Your task to perform on an android device: open app "Microsoft Outlook" Image 0: 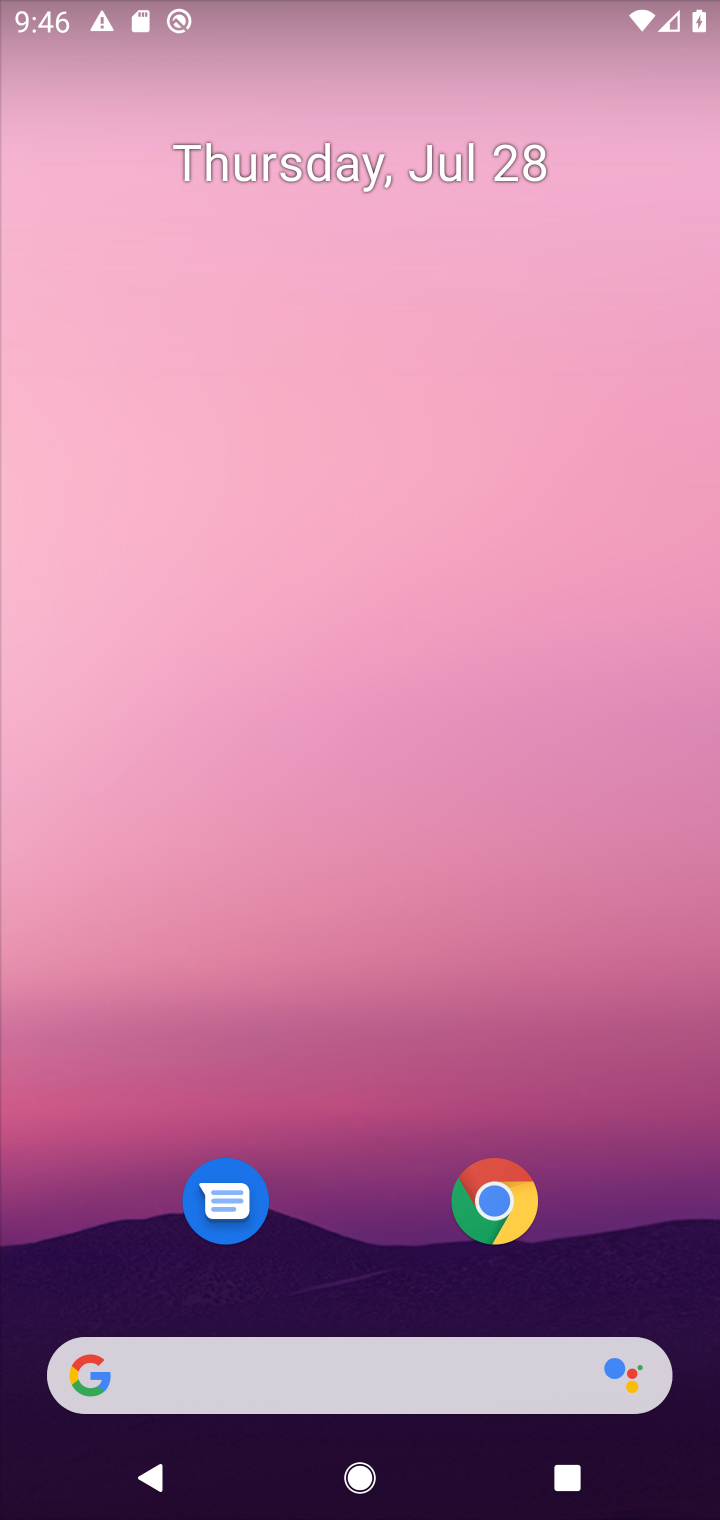
Step 0: click (274, 83)
Your task to perform on an android device: open app "Microsoft Outlook" Image 1: 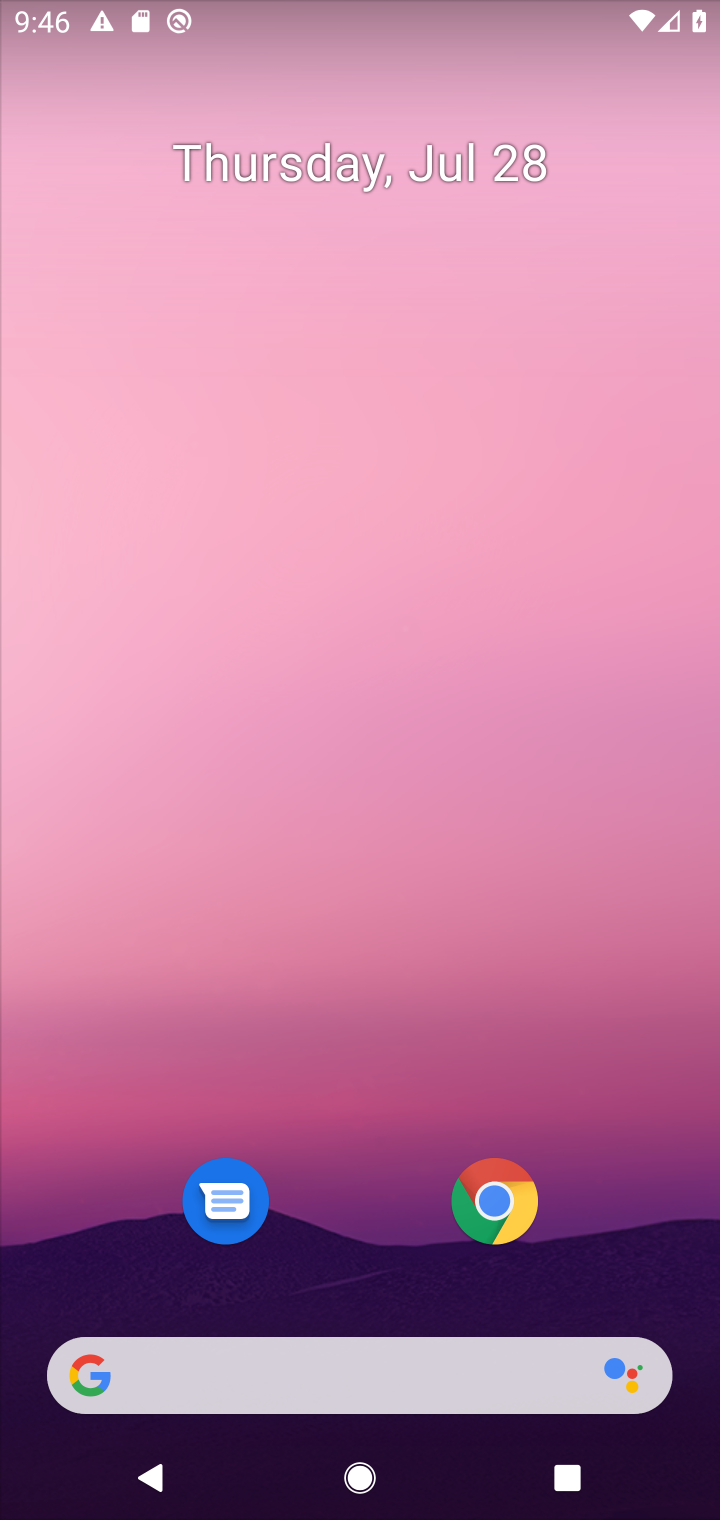
Step 1: drag from (543, 972) to (0, 917)
Your task to perform on an android device: open app "Microsoft Outlook" Image 2: 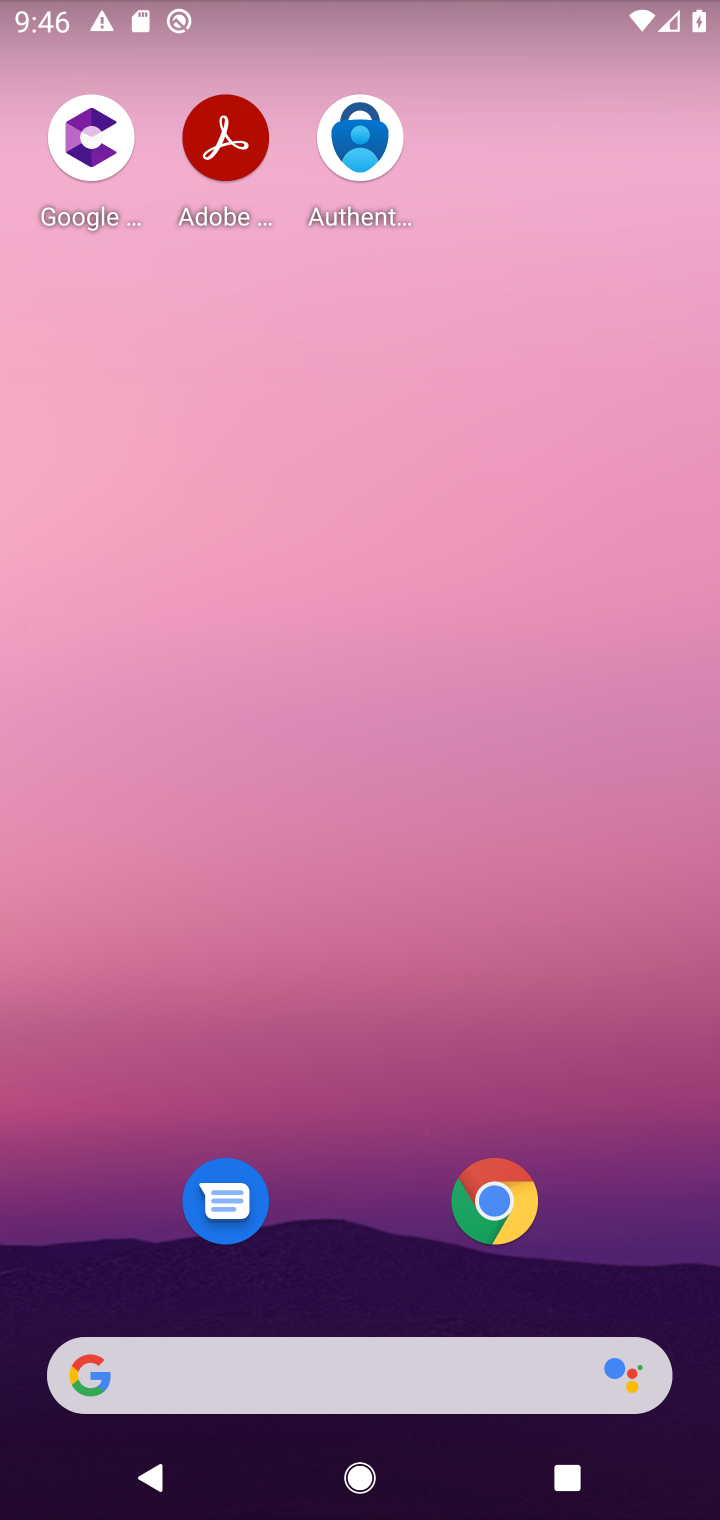
Step 2: drag from (287, 1200) to (195, 17)
Your task to perform on an android device: open app "Microsoft Outlook" Image 3: 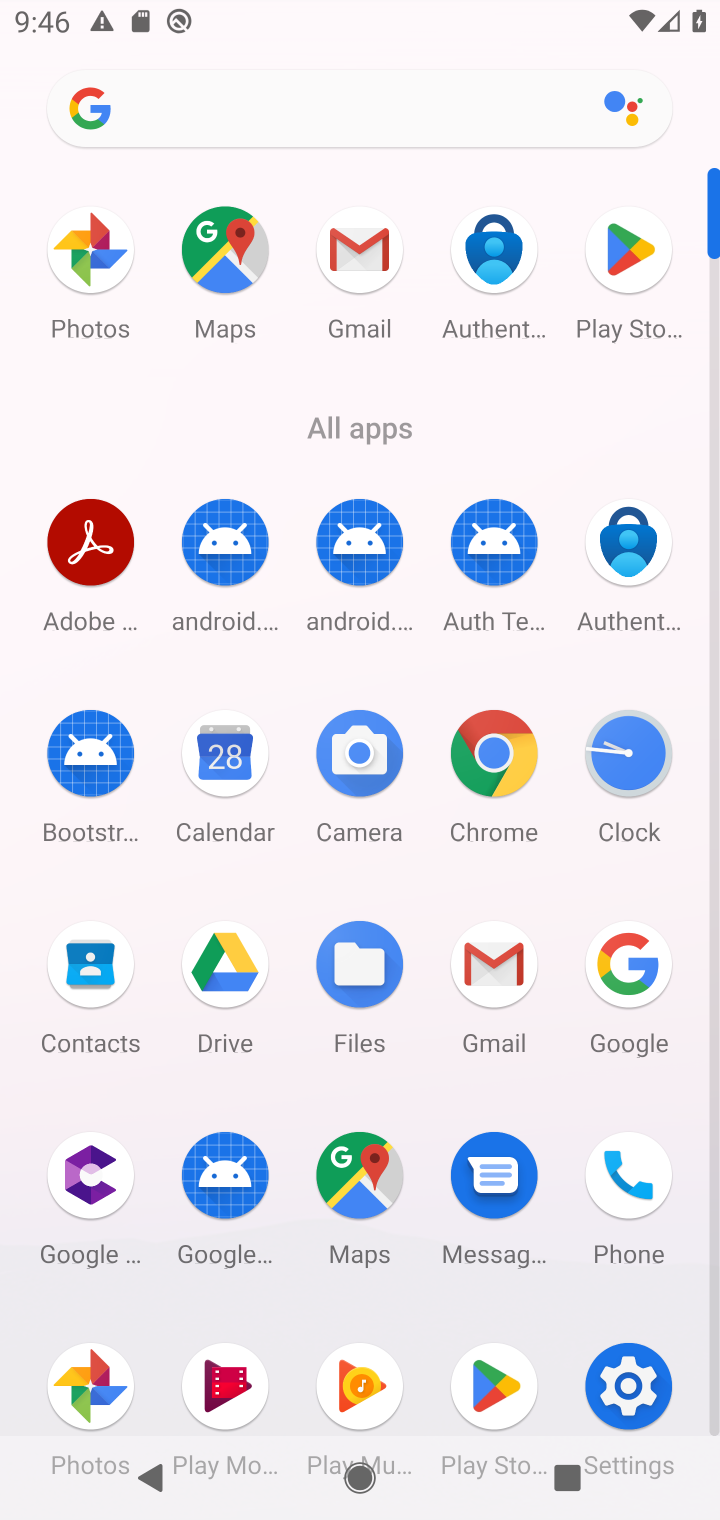
Step 3: click (631, 414)
Your task to perform on an android device: open app "Microsoft Outlook" Image 4: 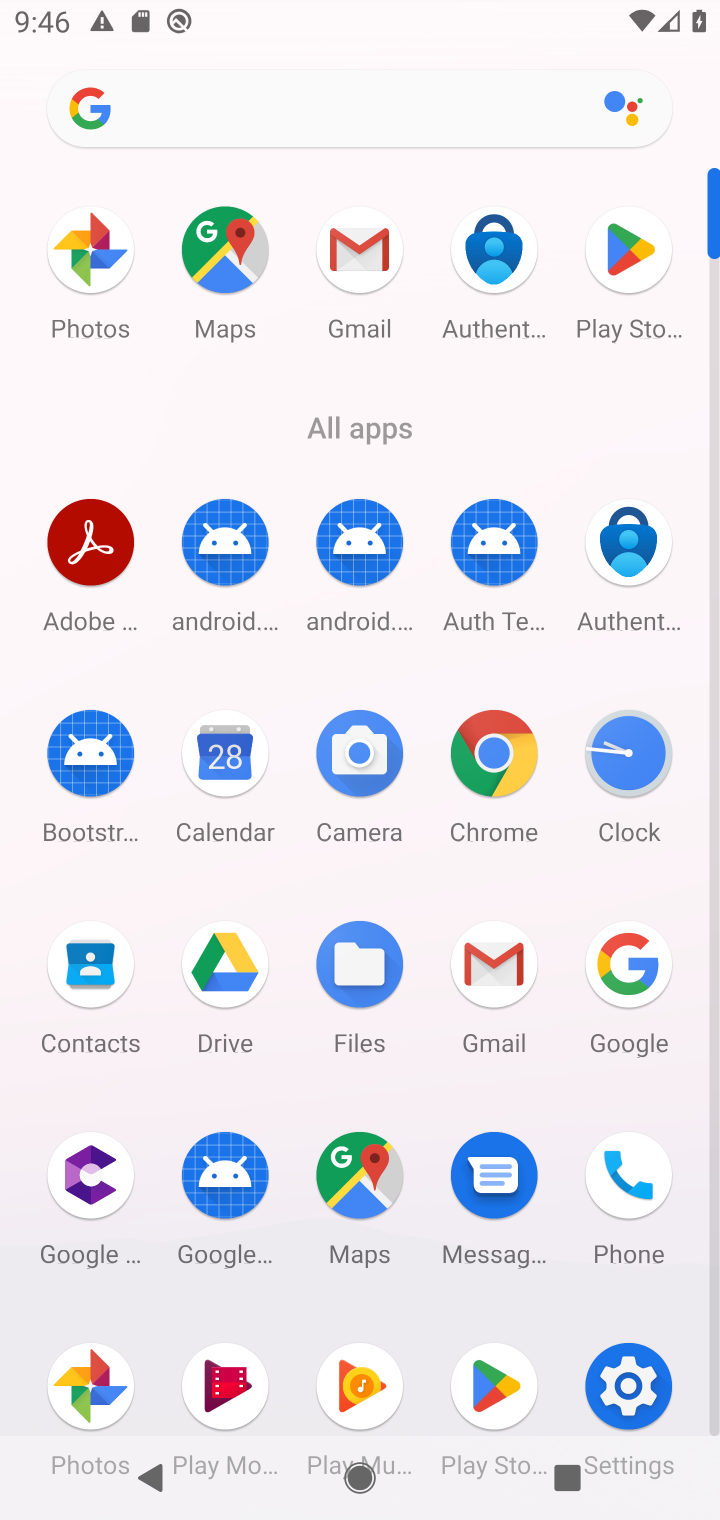
Step 4: click (635, 295)
Your task to perform on an android device: open app "Microsoft Outlook" Image 5: 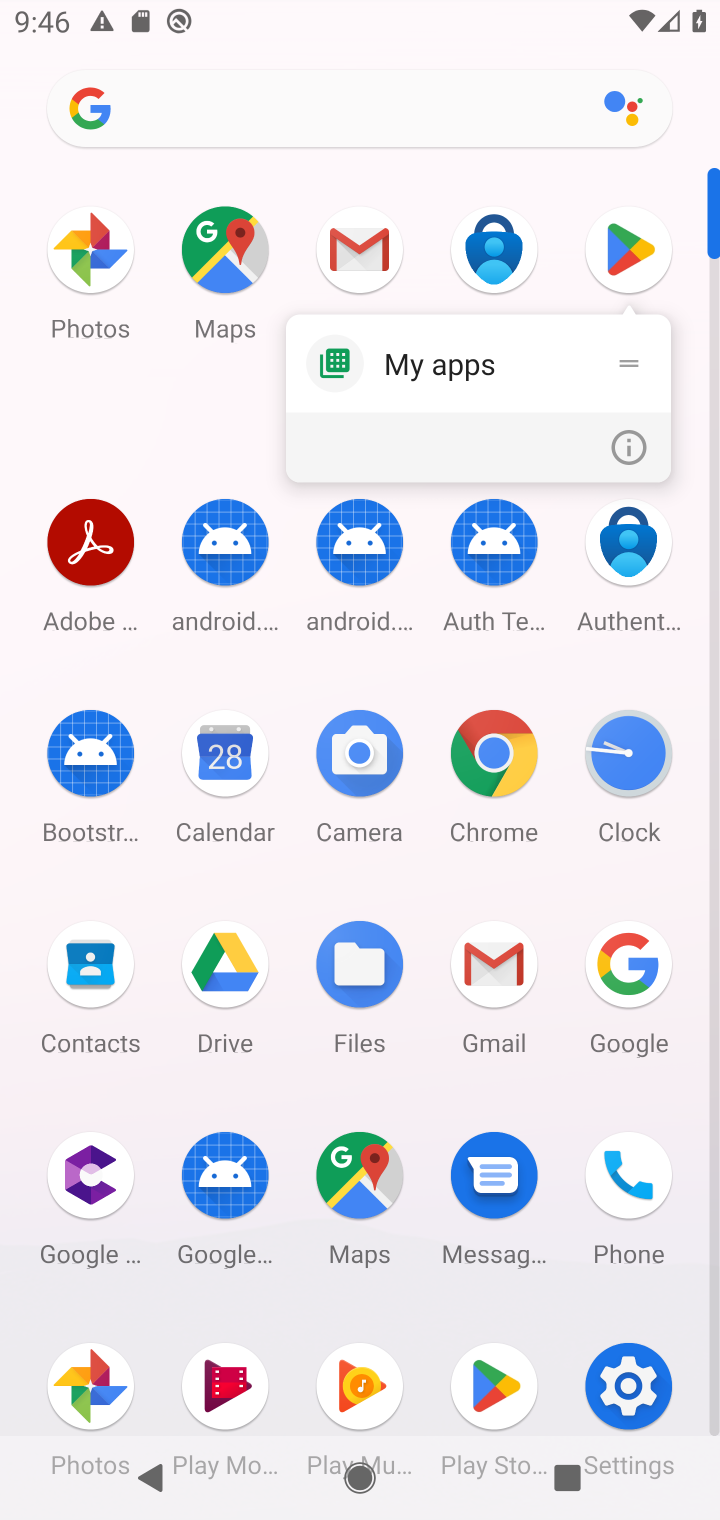
Step 5: click (649, 274)
Your task to perform on an android device: open app "Microsoft Outlook" Image 6: 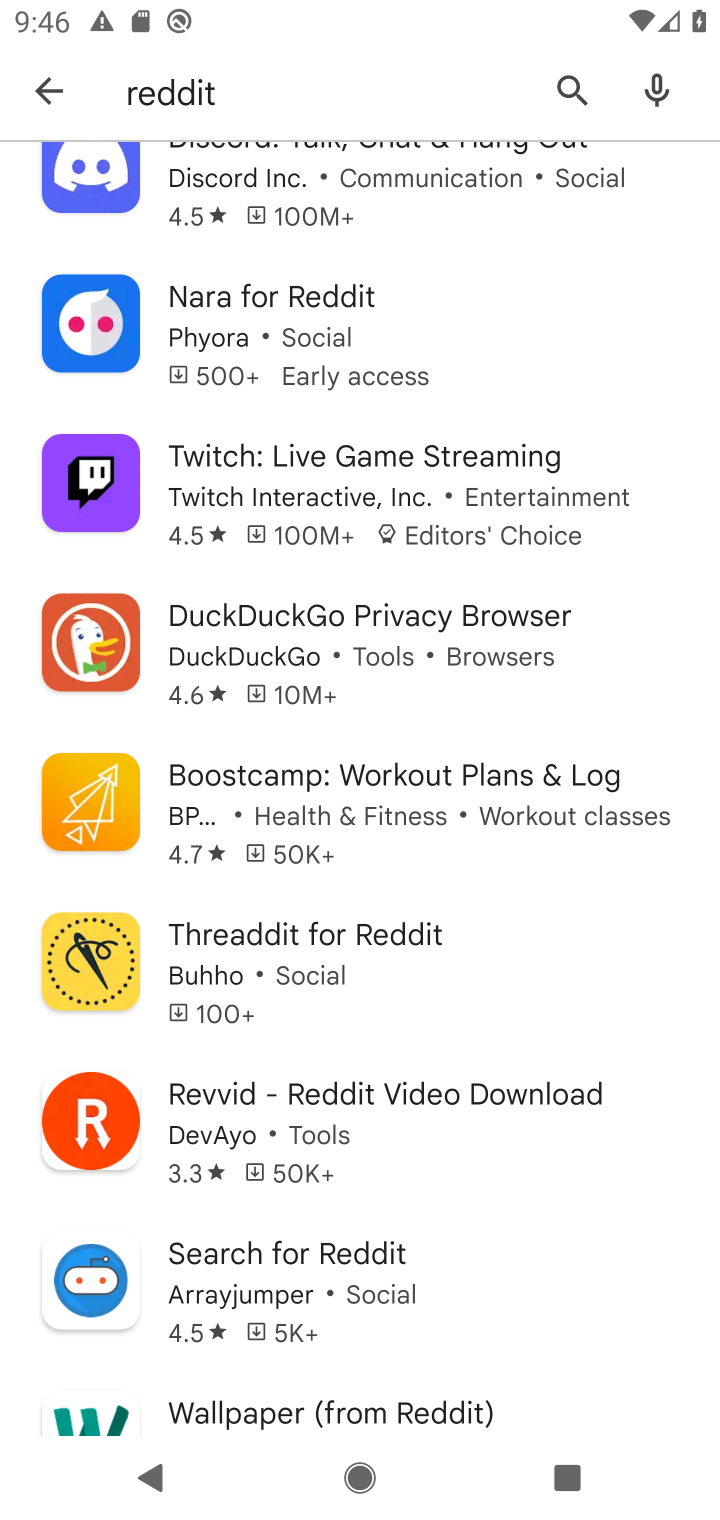
Step 6: click (194, 78)
Your task to perform on an android device: open app "Microsoft Outlook" Image 7: 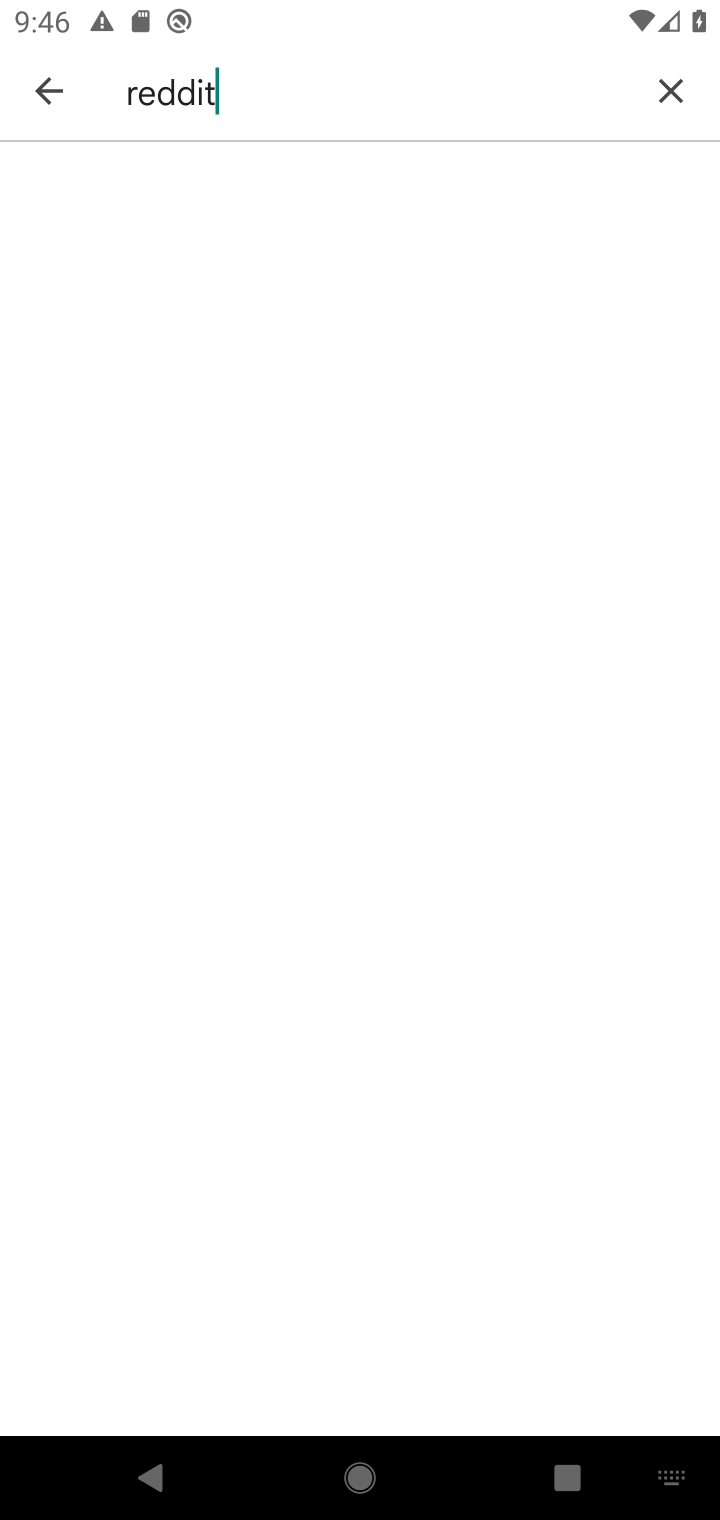
Step 7: click (645, 85)
Your task to perform on an android device: open app "Microsoft Outlook" Image 8: 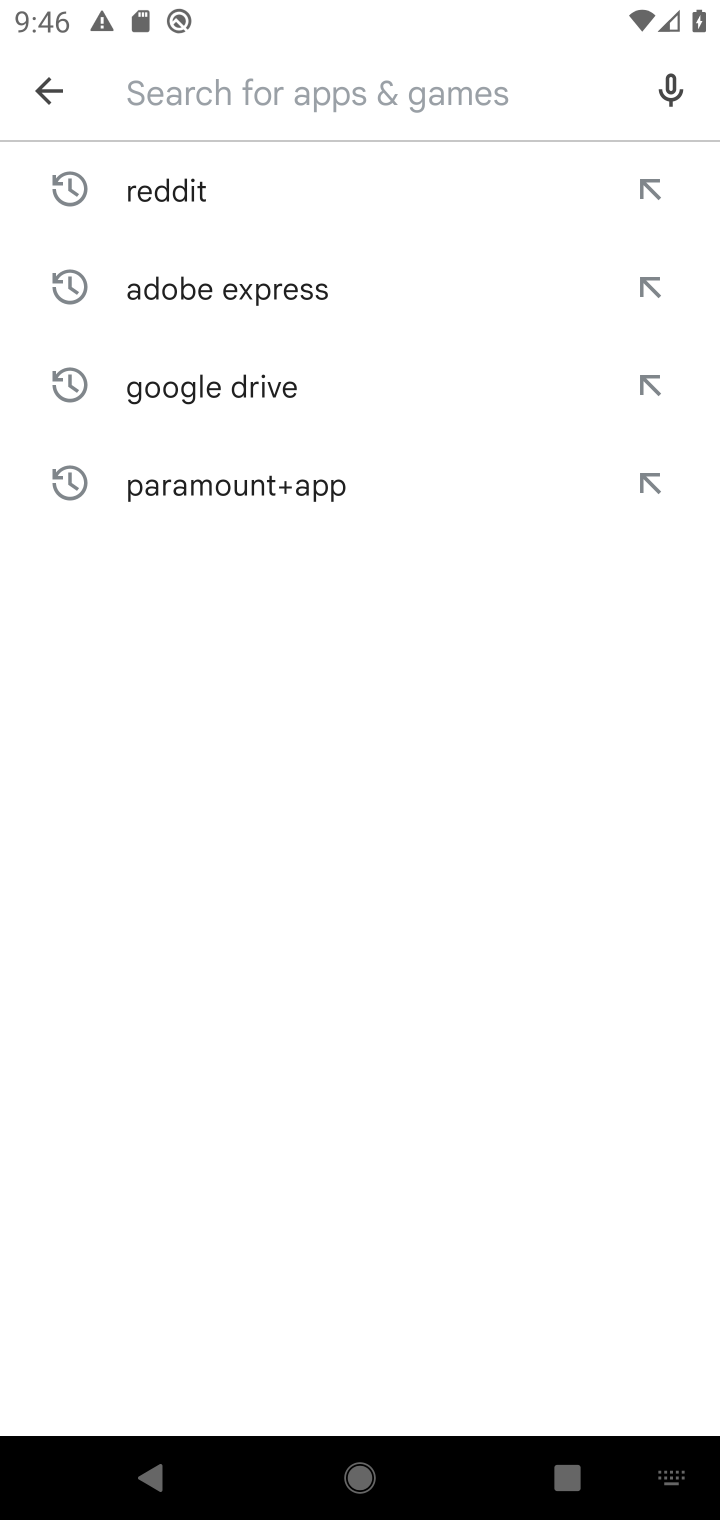
Step 8: type "microsoft Outlook"
Your task to perform on an android device: open app "Microsoft Outlook" Image 9: 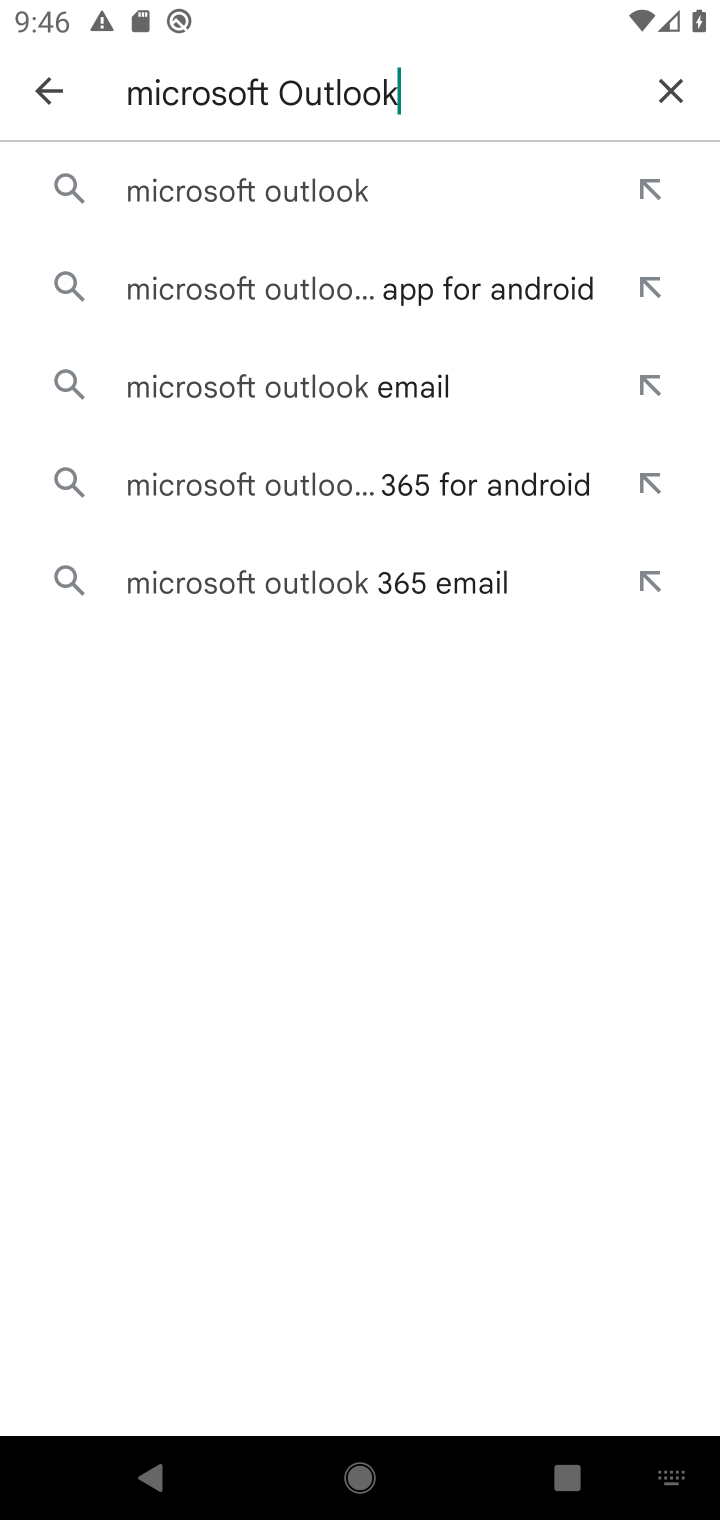
Step 9: click (324, 185)
Your task to perform on an android device: open app "Microsoft Outlook" Image 10: 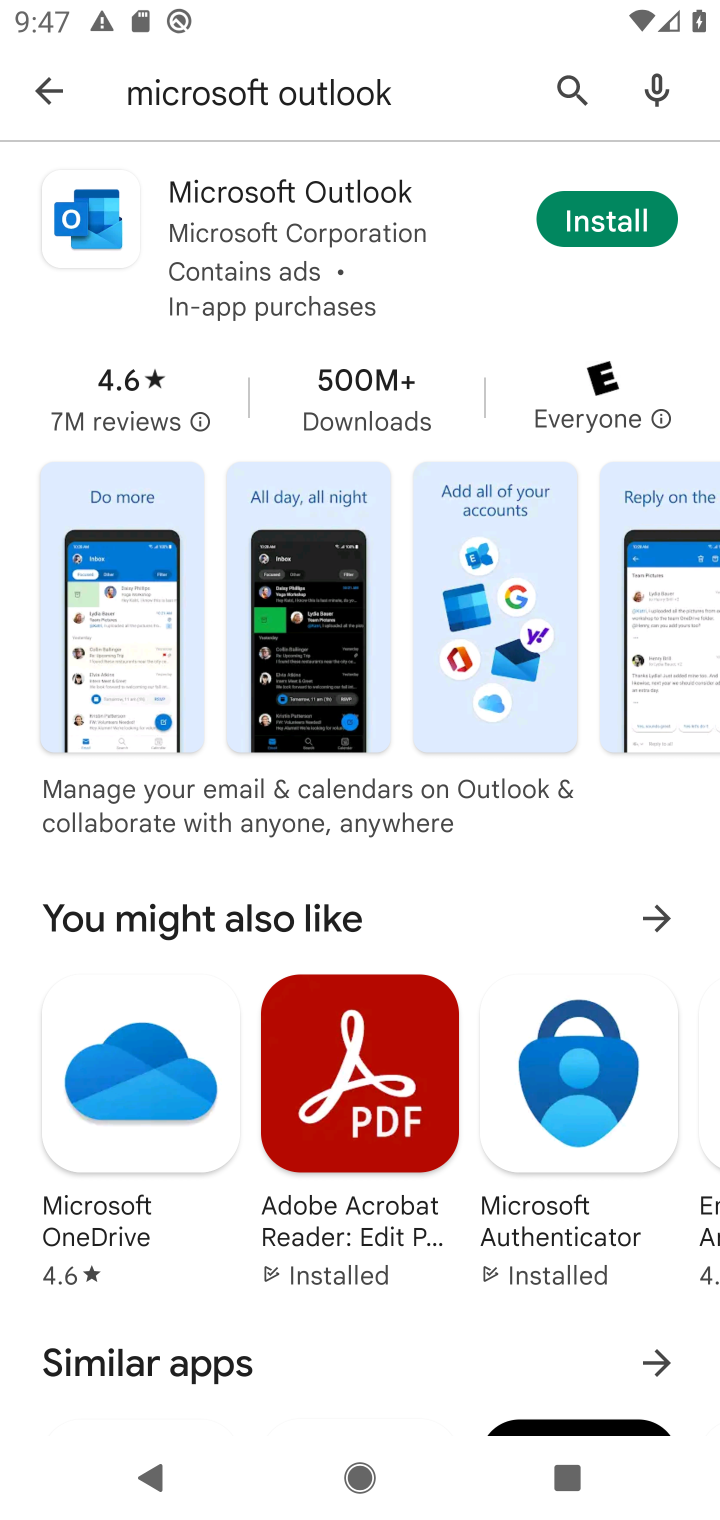
Step 10: task complete